Your task to perform on an android device: turn off priority inbox in the gmail app Image 0: 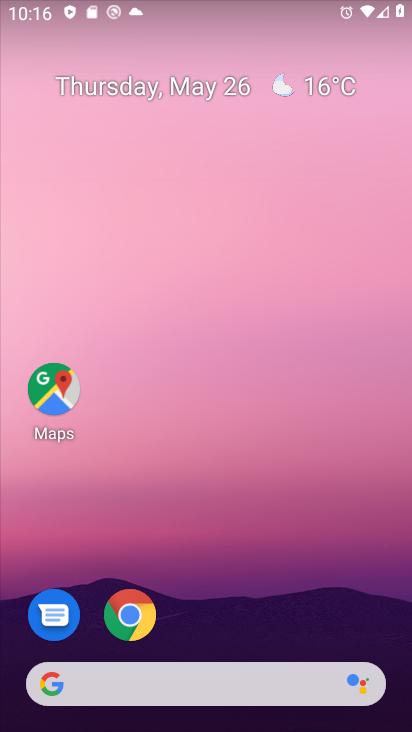
Step 0: press home button
Your task to perform on an android device: turn off priority inbox in the gmail app Image 1: 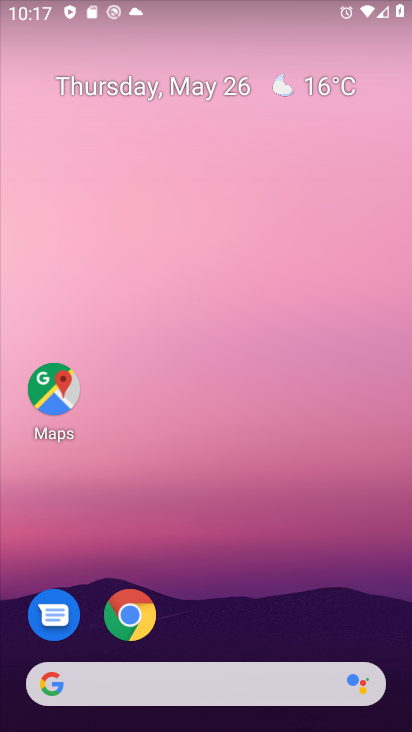
Step 1: drag from (240, 692) to (247, 138)
Your task to perform on an android device: turn off priority inbox in the gmail app Image 2: 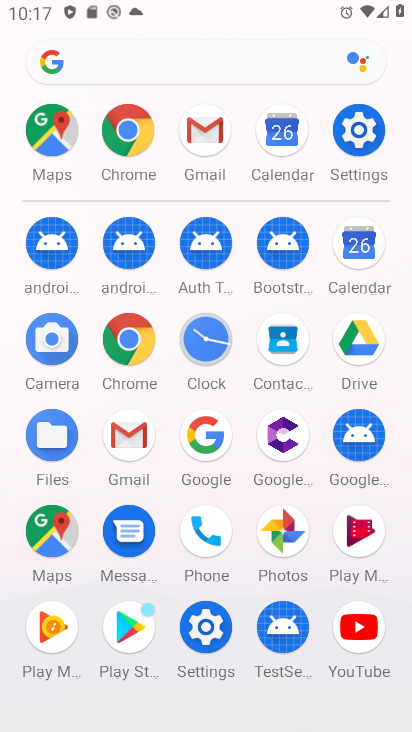
Step 2: click (199, 162)
Your task to perform on an android device: turn off priority inbox in the gmail app Image 3: 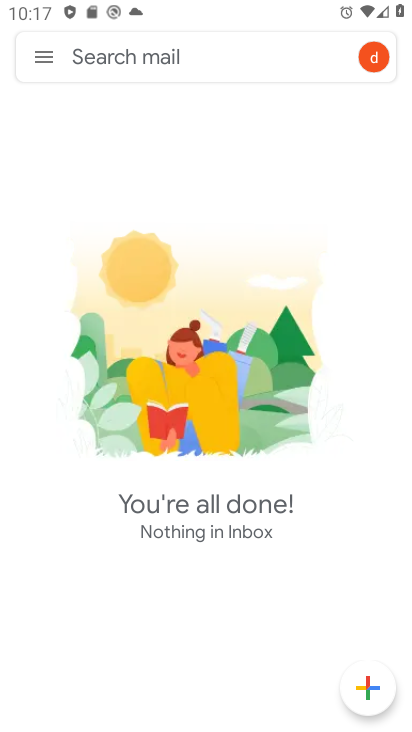
Step 3: click (48, 57)
Your task to perform on an android device: turn off priority inbox in the gmail app Image 4: 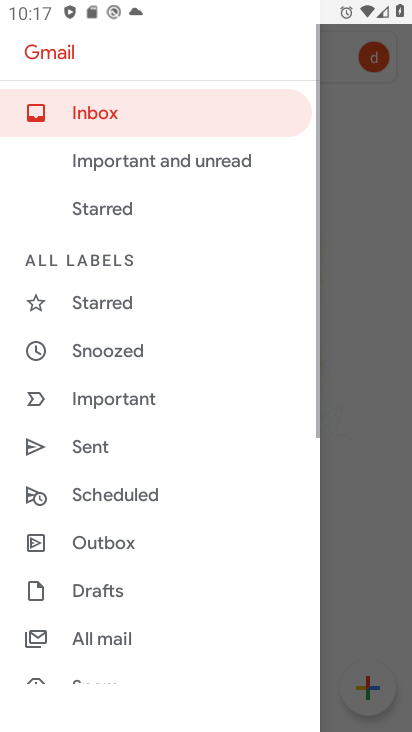
Step 4: drag from (110, 623) to (198, 294)
Your task to perform on an android device: turn off priority inbox in the gmail app Image 5: 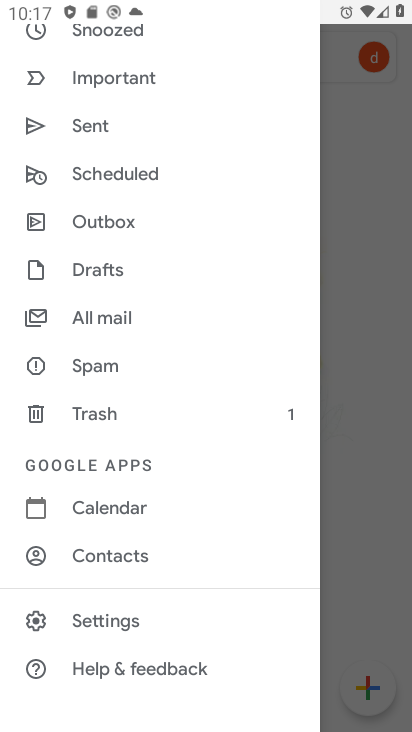
Step 5: click (138, 619)
Your task to perform on an android device: turn off priority inbox in the gmail app Image 6: 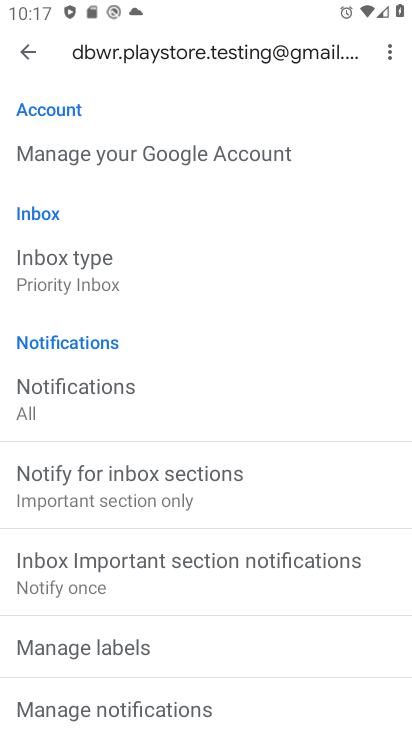
Step 6: click (121, 293)
Your task to perform on an android device: turn off priority inbox in the gmail app Image 7: 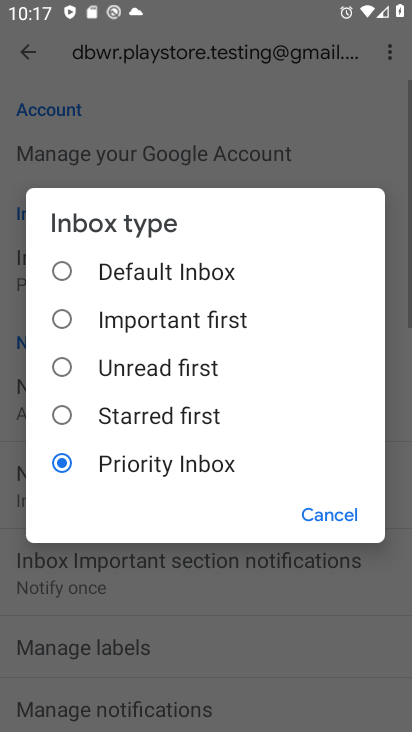
Step 7: click (127, 282)
Your task to perform on an android device: turn off priority inbox in the gmail app Image 8: 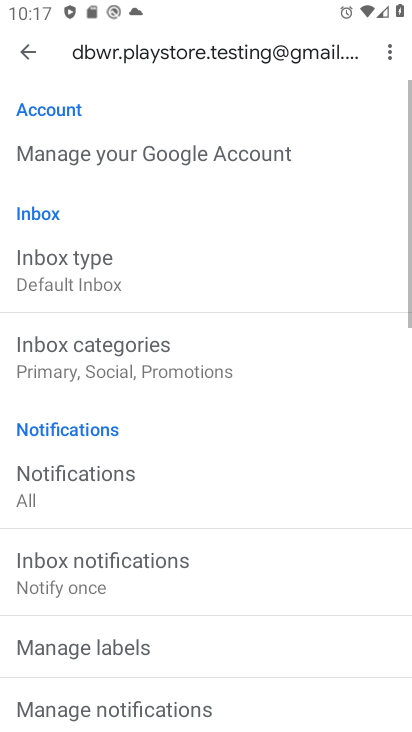
Step 8: task complete